Your task to perform on an android device: Open the phone app and click the voicemail tab. Image 0: 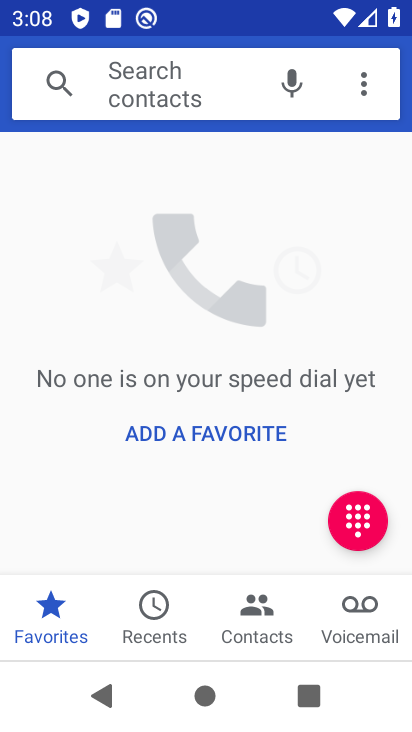
Step 0: press home button
Your task to perform on an android device: Open the phone app and click the voicemail tab. Image 1: 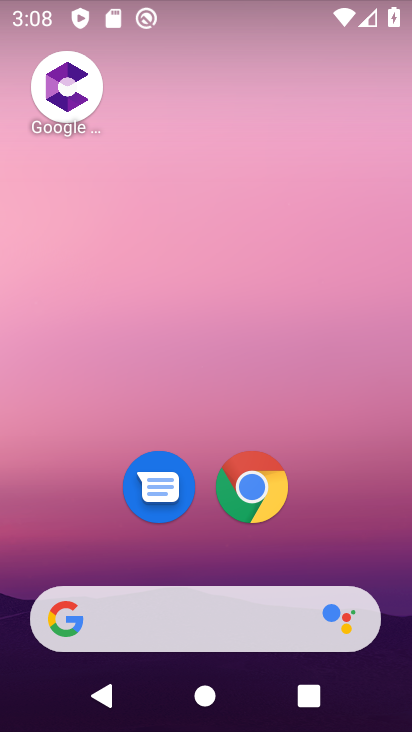
Step 1: drag from (331, 573) to (299, 0)
Your task to perform on an android device: Open the phone app and click the voicemail tab. Image 2: 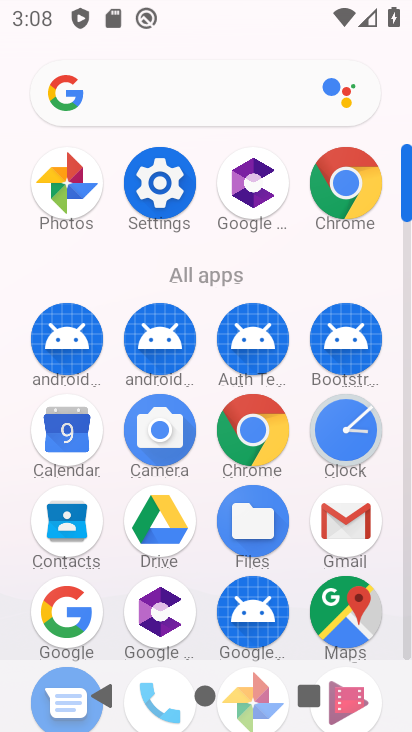
Step 2: drag from (311, 647) to (295, 248)
Your task to perform on an android device: Open the phone app and click the voicemail tab. Image 3: 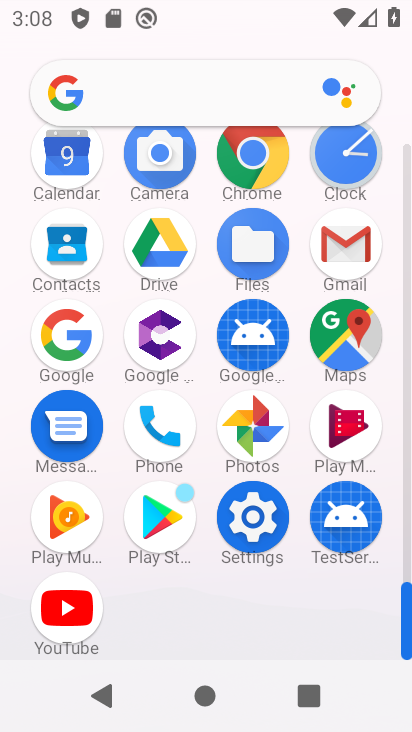
Step 3: click (328, 441)
Your task to perform on an android device: Open the phone app and click the voicemail tab. Image 4: 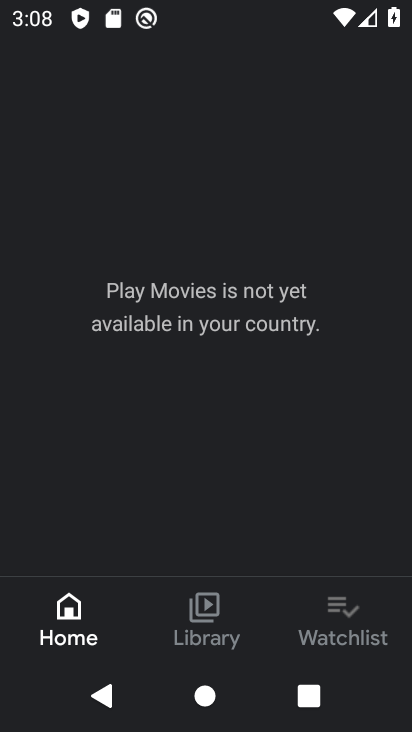
Step 4: click (345, 609)
Your task to perform on an android device: Open the phone app and click the voicemail tab. Image 5: 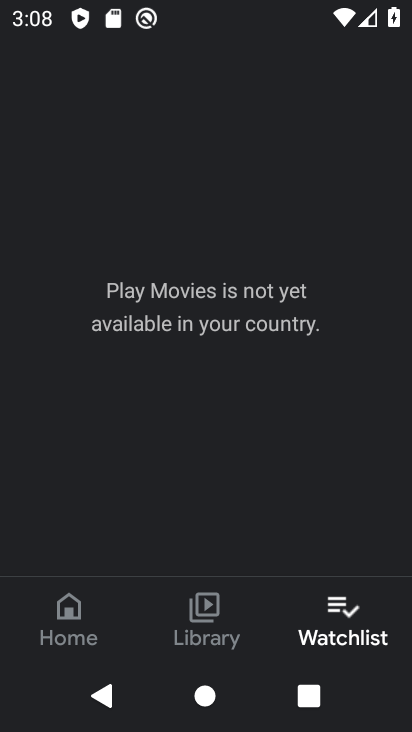
Step 5: task complete